Your task to perform on an android device: Go to settings Image 0: 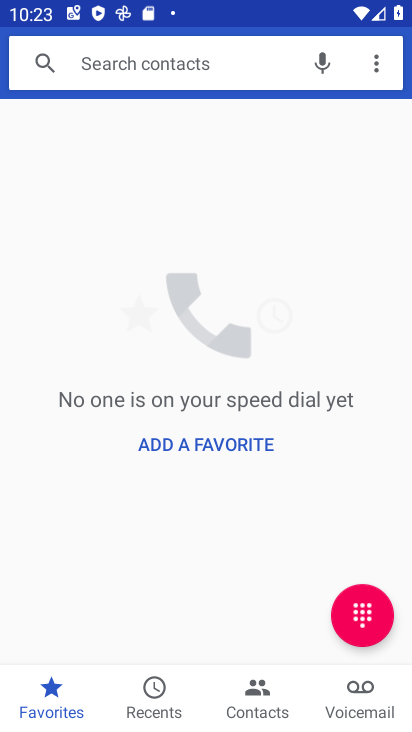
Step 0: press home button
Your task to perform on an android device: Go to settings Image 1: 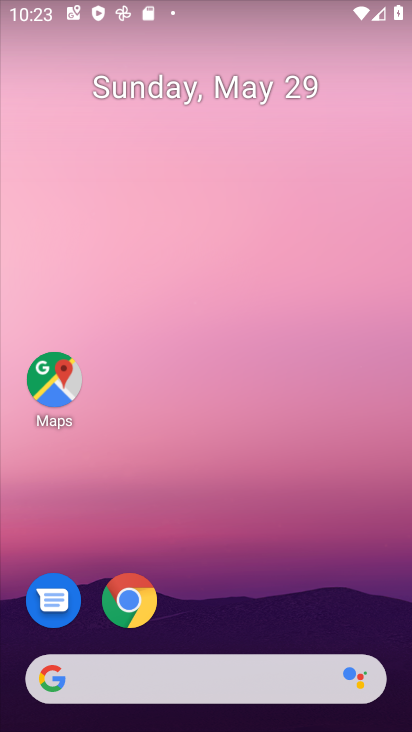
Step 1: drag from (213, 727) to (213, 76)
Your task to perform on an android device: Go to settings Image 2: 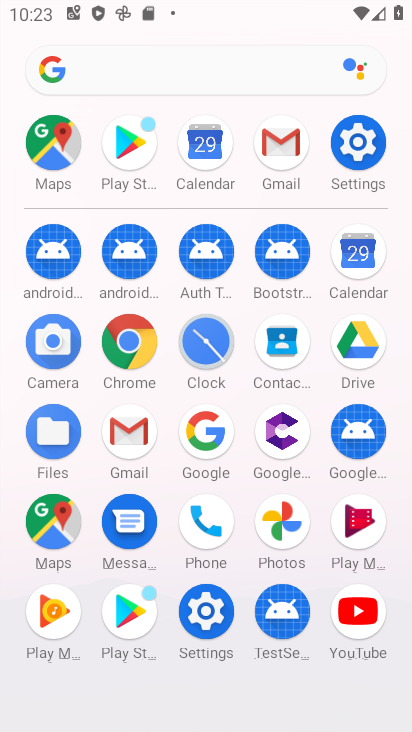
Step 2: click (364, 152)
Your task to perform on an android device: Go to settings Image 3: 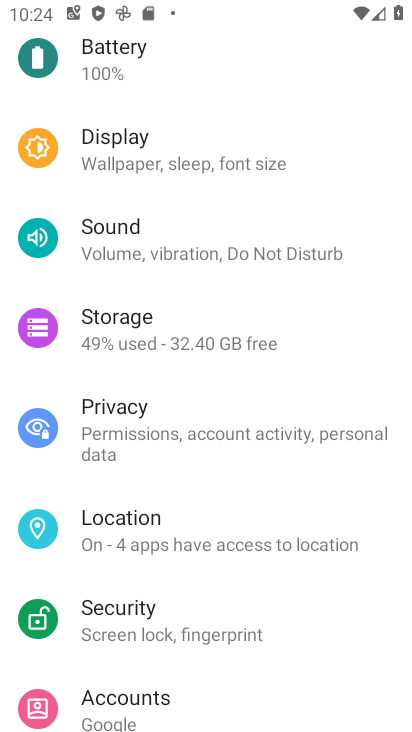
Step 3: task complete